Your task to perform on an android device: Open eBay Image 0: 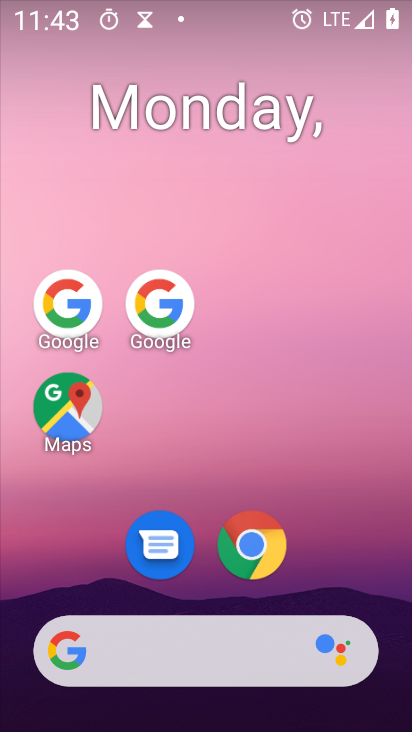
Step 0: press home button
Your task to perform on an android device: Open eBay Image 1: 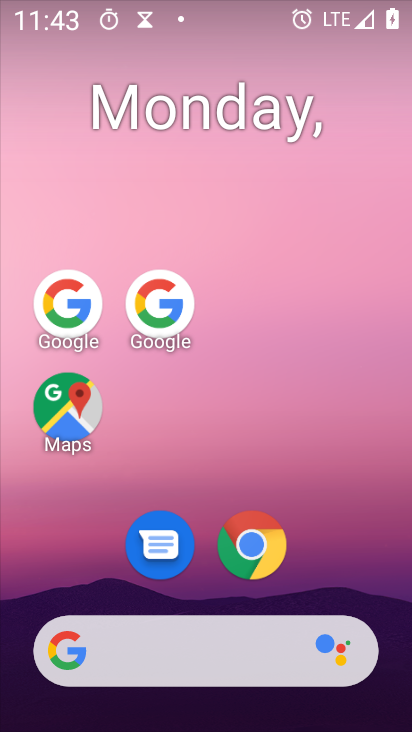
Step 1: click (271, 556)
Your task to perform on an android device: Open eBay Image 2: 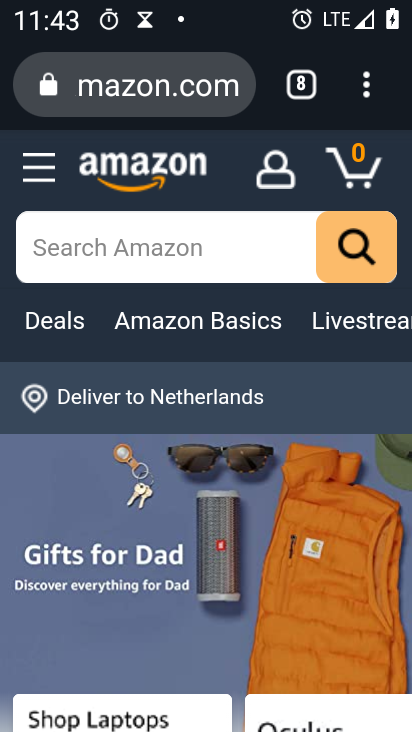
Step 2: drag from (367, 86) to (223, 171)
Your task to perform on an android device: Open eBay Image 3: 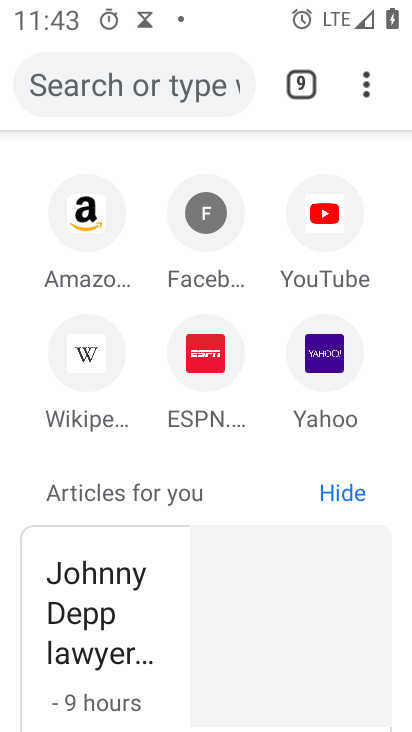
Step 3: click (141, 81)
Your task to perform on an android device: Open eBay Image 4: 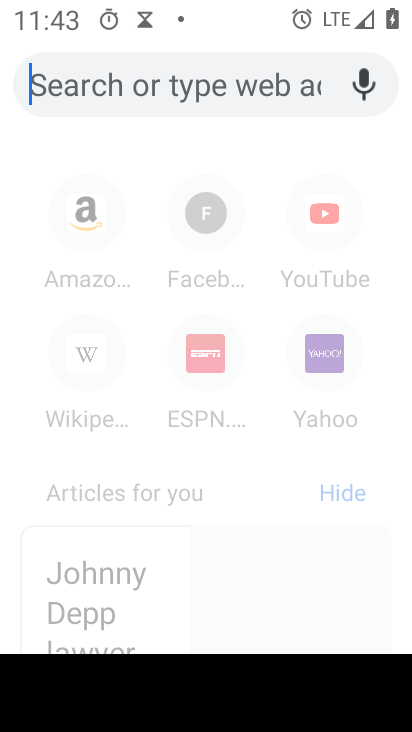
Step 4: type "ebay"
Your task to perform on an android device: Open eBay Image 5: 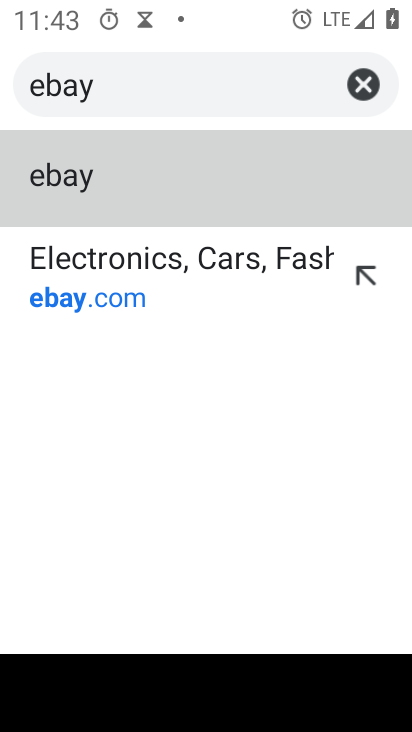
Step 5: click (167, 187)
Your task to perform on an android device: Open eBay Image 6: 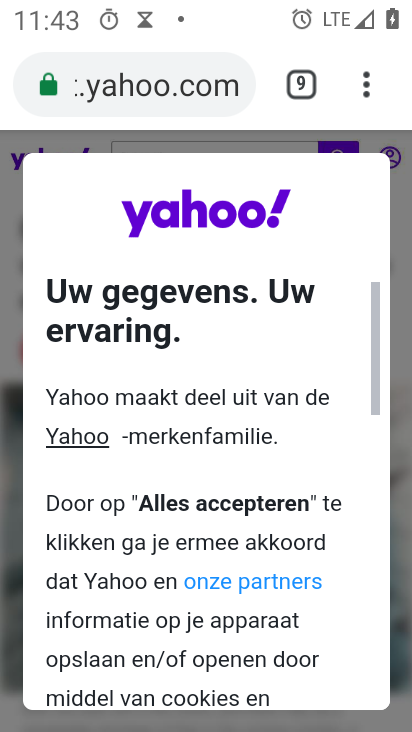
Step 6: drag from (199, 667) to (377, 188)
Your task to perform on an android device: Open eBay Image 7: 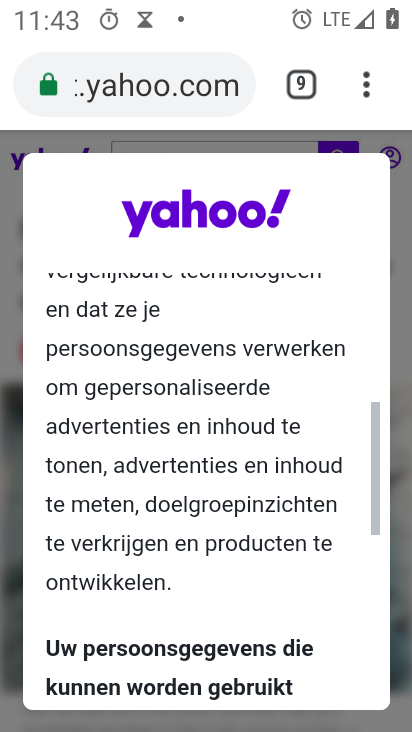
Step 7: drag from (168, 623) to (329, 178)
Your task to perform on an android device: Open eBay Image 8: 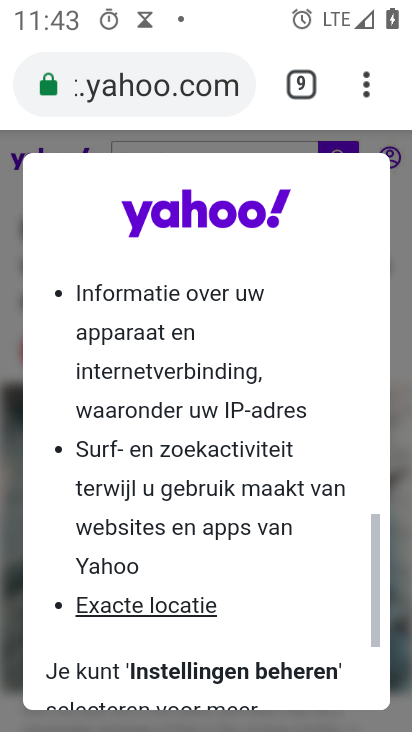
Step 8: drag from (216, 633) to (348, 80)
Your task to perform on an android device: Open eBay Image 9: 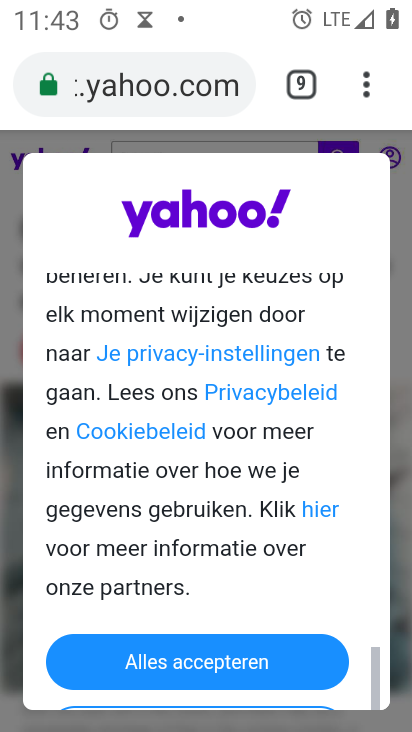
Step 9: click (205, 656)
Your task to perform on an android device: Open eBay Image 10: 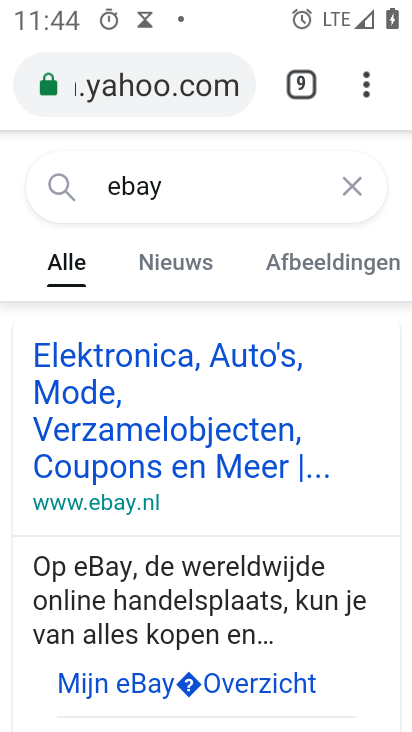
Step 10: click (104, 436)
Your task to perform on an android device: Open eBay Image 11: 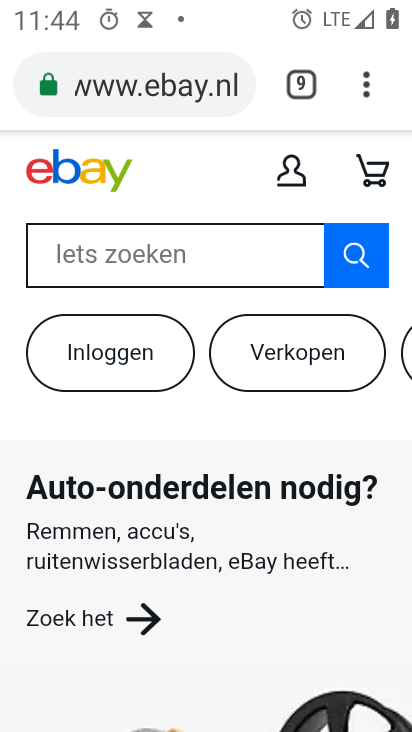
Step 11: task complete